Your task to perform on an android device: toggle notification dots Image 0: 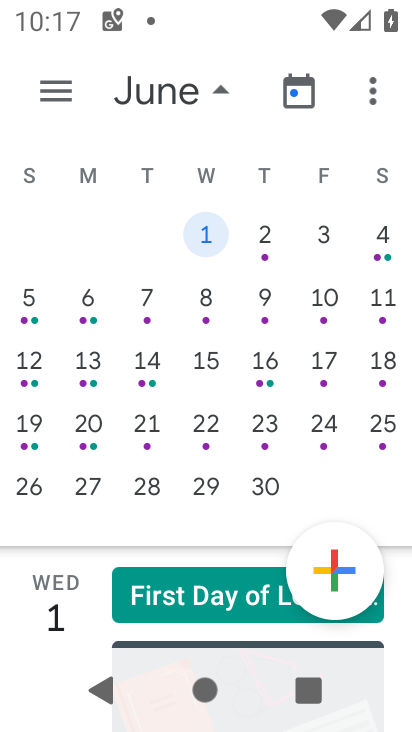
Step 0: press home button
Your task to perform on an android device: toggle notification dots Image 1: 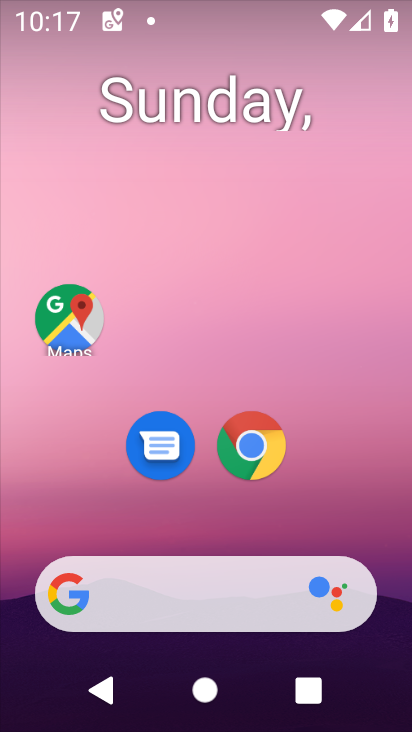
Step 1: drag from (389, 499) to (300, 69)
Your task to perform on an android device: toggle notification dots Image 2: 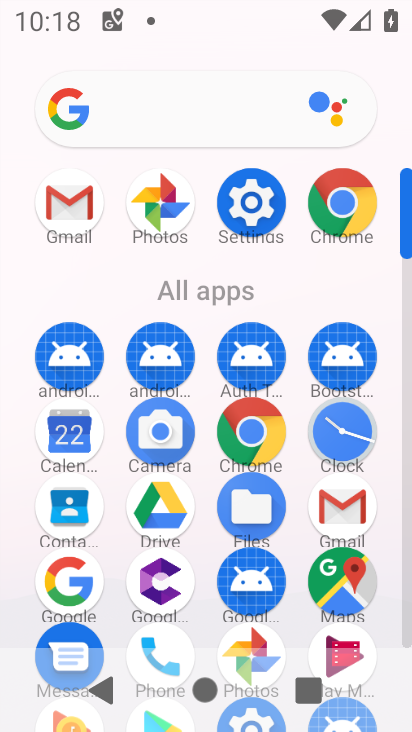
Step 2: click (409, 633)
Your task to perform on an android device: toggle notification dots Image 3: 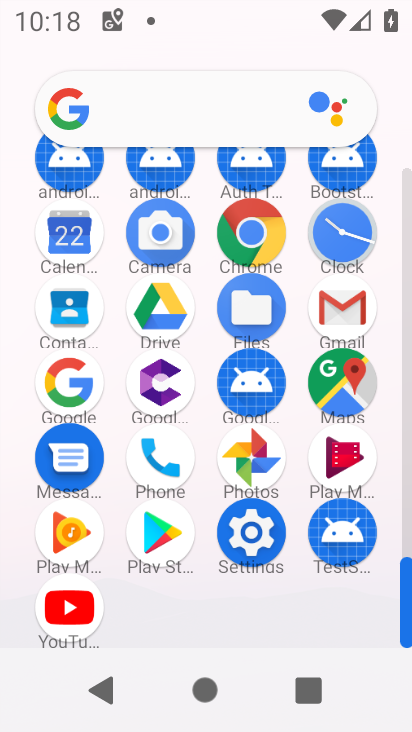
Step 3: click (243, 527)
Your task to perform on an android device: toggle notification dots Image 4: 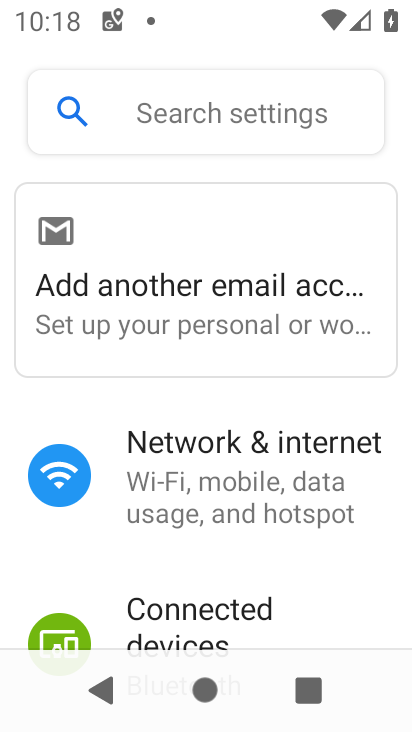
Step 4: drag from (243, 527) to (215, 29)
Your task to perform on an android device: toggle notification dots Image 5: 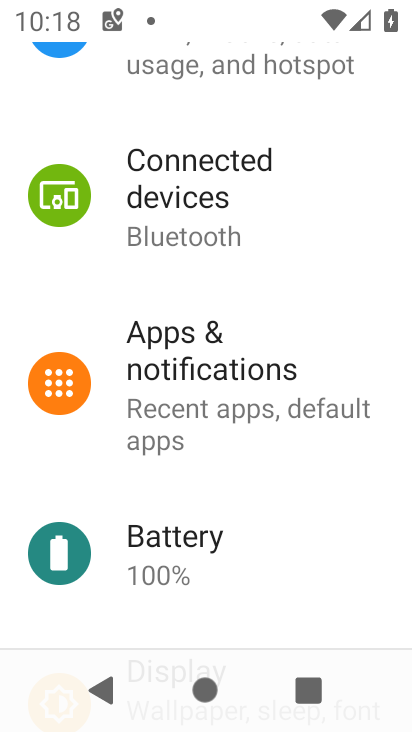
Step 5: click (103, 382)
Your task to perform on an android device: toggle notification dots Image 6: 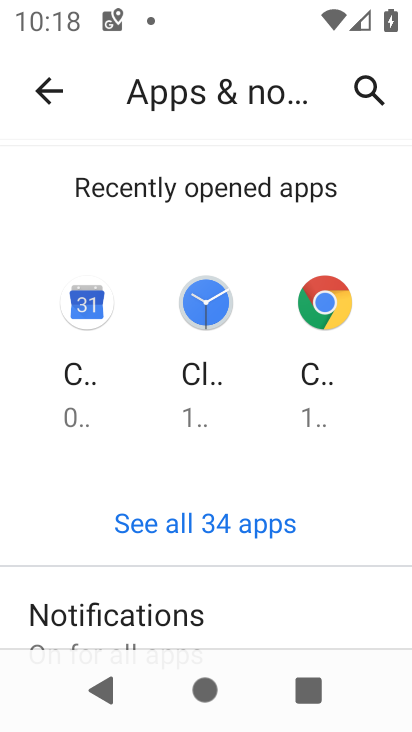
Step 6: drag from (123, 564) to (184, 219)
Your task to perform on an android device: toggle notification dots Image 7: 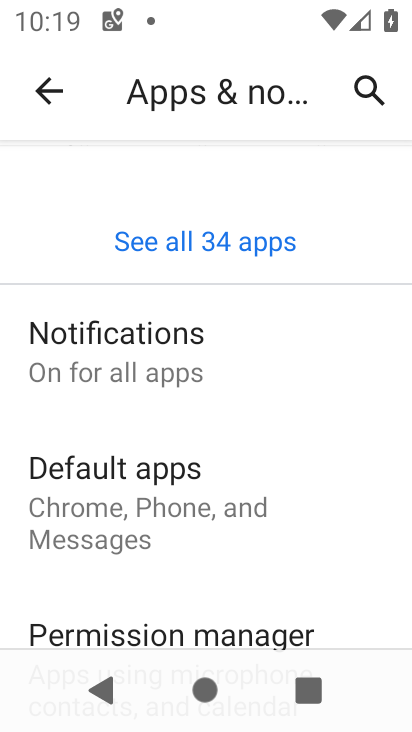
Step 7: click (86, 367)
Your task to perform on an android device: toggle notification dots Image 8: 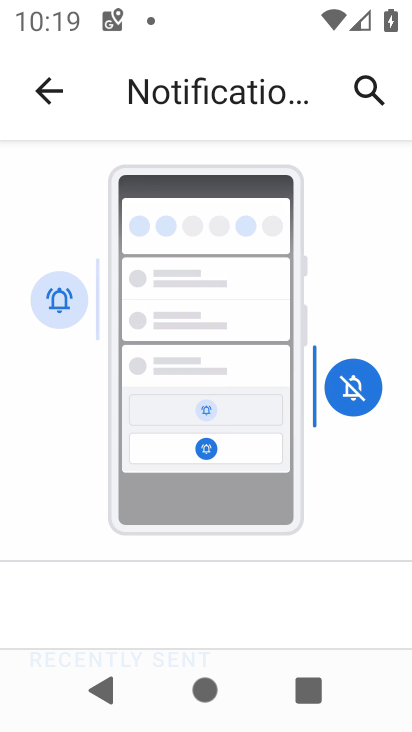
Step 8: drag from (208, 570) to (105, 157)
Your task to perform on an android device: toggle notification dots Image 9: 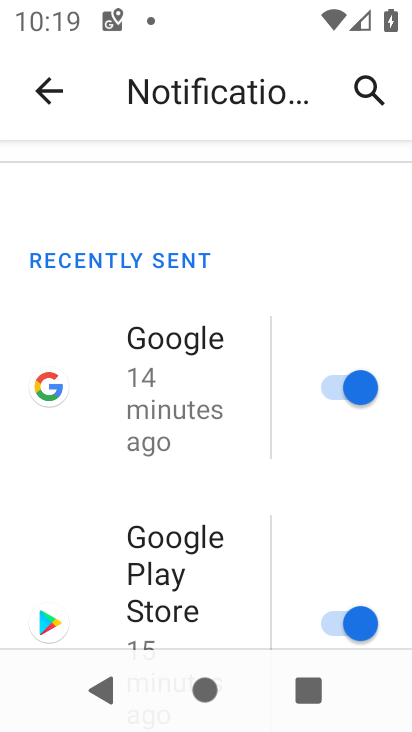
Step 9: drag from (183, 454) to (50, 163)
Your task to perform on an android device: toggle notification dots Image 10: 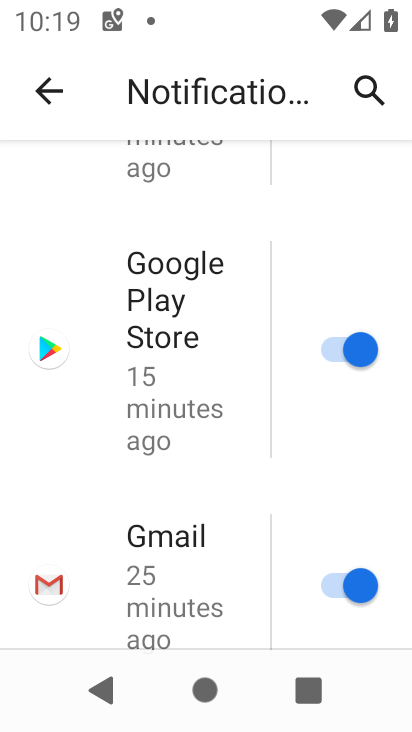
Step 10: drag from (128, 489) to (74, 172)
Your task to perform on an android device: toggle notification dots Image 11: 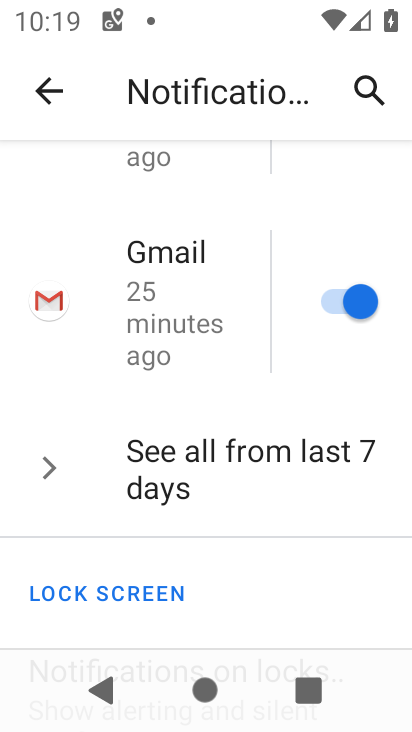
Step 11: drag from (175, 546) to (94, 317)
Your task to perform on an android device: toggle notification dots Image 12: 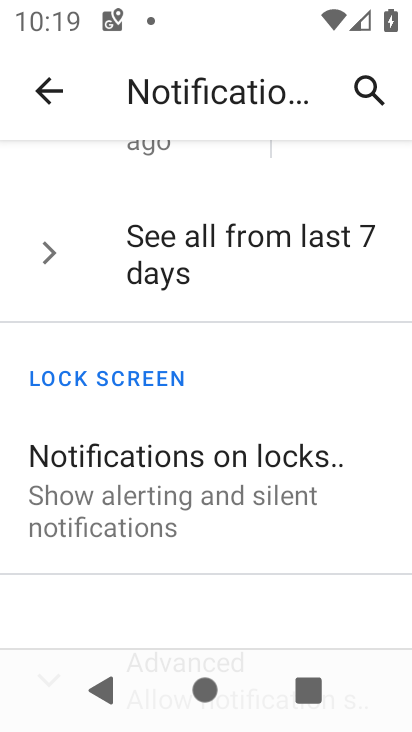
Step 12: drag from (111, 579) to (22, 227)
Your task to perform on an android device: toggle notification dots Image 13: 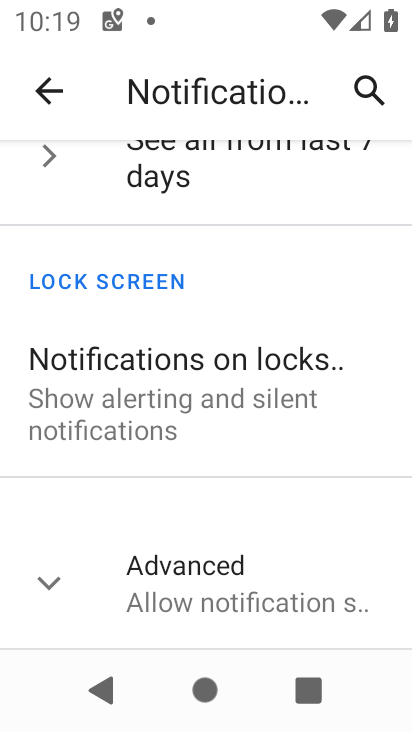
Step 13: click (193, 601)
Your task to perform on an android device: toggle notification dots Image 14: 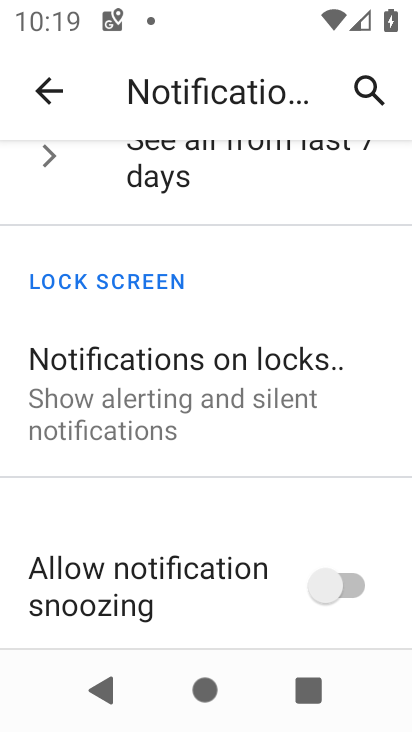
Step 14: drag from (227, 628) to (122, 256)
Your task to perform on an android device: toggle notification dots Image 15: 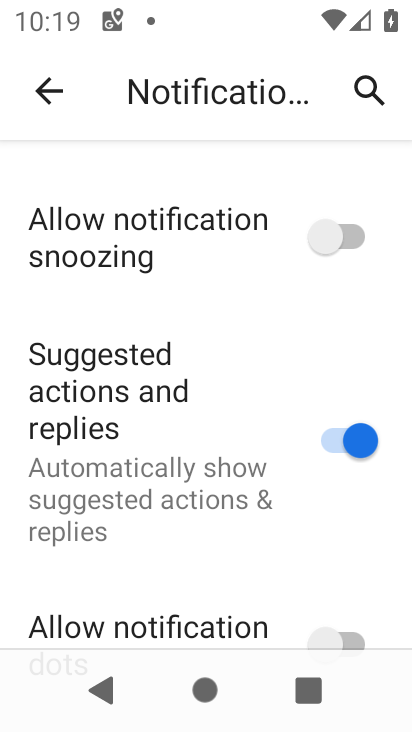
Step 15: drag from (193, 558) to (180, 435)
Your task to perform on an android device: toggle notification dots Image 16: 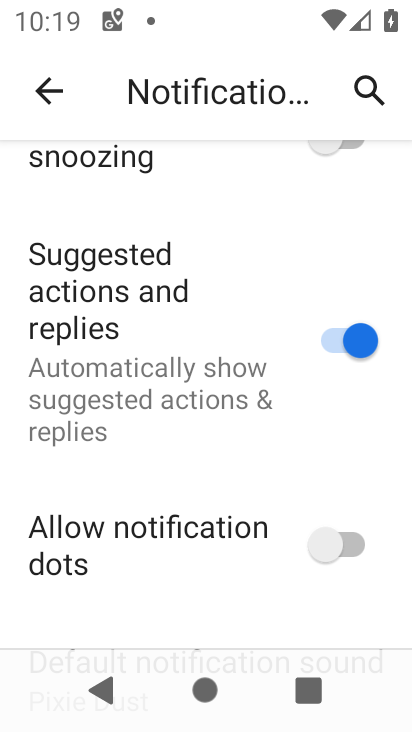
Step 16: drag from (238, 584) to (180, 254)
Your task to perform on an android device: toggle notification dots Image 17: 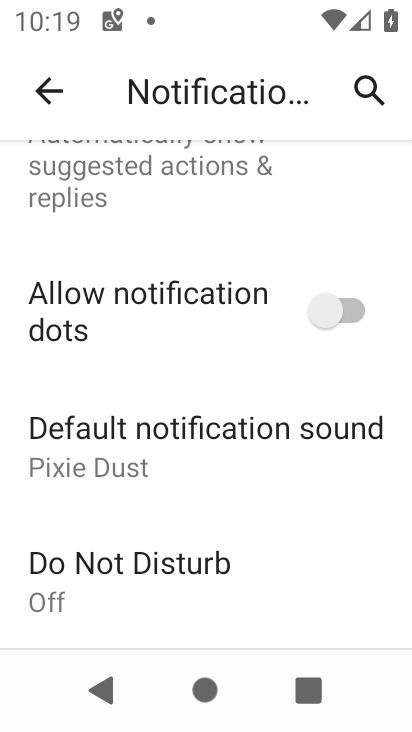
Step 17: click (206, 301)
Your task to perform on an android device: toggle notification dots Image 18: 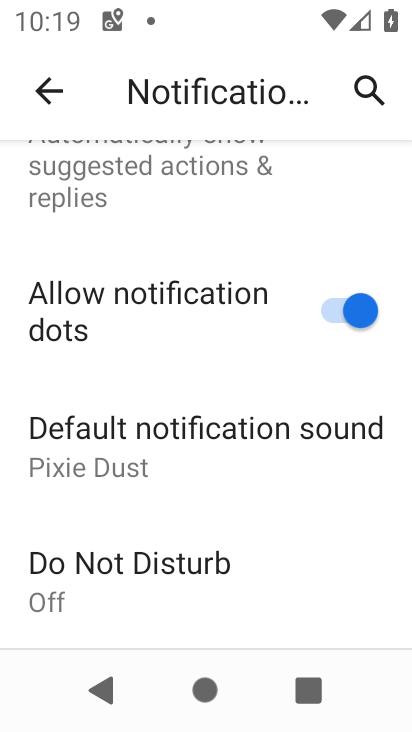
Step 18: task complete